Your task to perform on an android device: Play the last video I watched on Youtube Image 0: 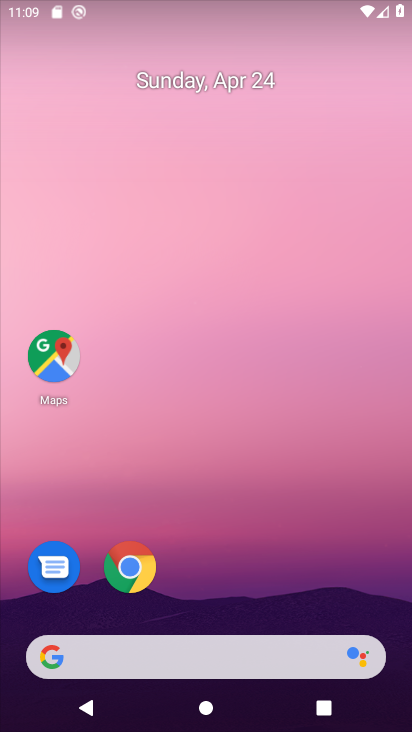
Step 0: drag from (286, 532) to (367, 345)
Your task to perform on an android device: Play the last video I watched on Youtube Image 1: 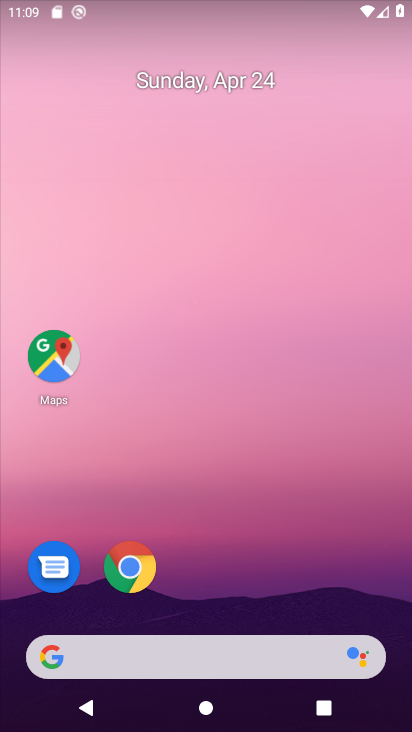
Step 1: drag from (273, 538) to (296, 18)
Your task to perform on an android device: Play the last video I watched on Youtube Image 2: 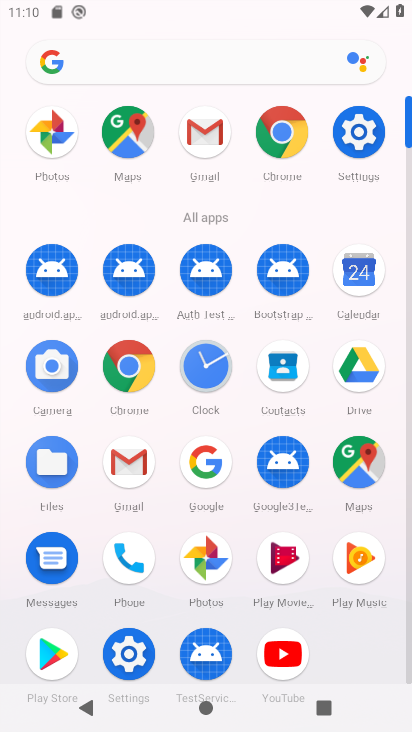
Step 2: click (290, 637)
Your task to perform on an android device: Play the last video I watched on Youtube Image 3: 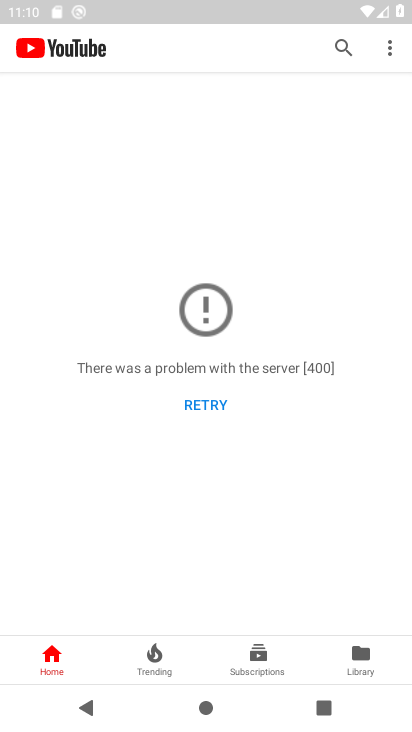
Step 3: click (185, 407)
Your task to perform on an android device: Play the last video I watched on Youtube Image 4: 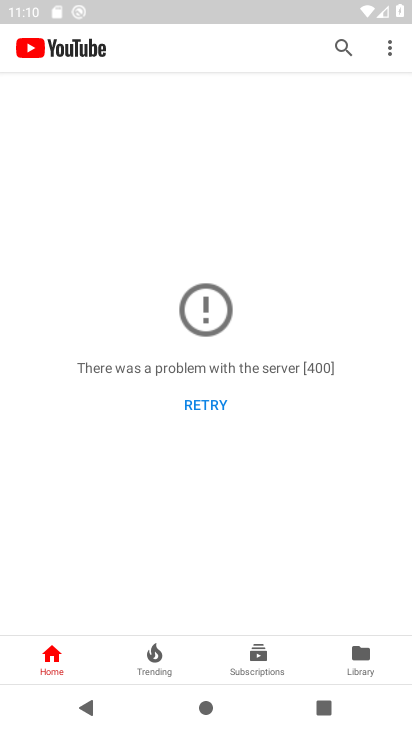
Step 4: click (196, 407)
Your task to perform on an android device: Play the last video I watched on Youtube Image 5: 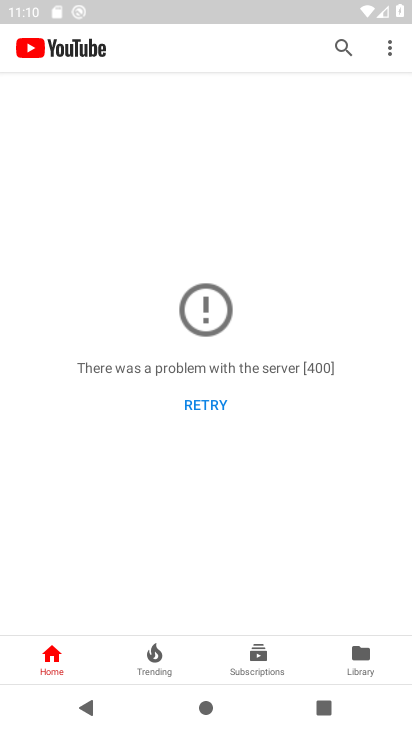
Step 5: click (196, 407)
Your task to perform on an android device: Play the last video I watched on Youtube Image 6: 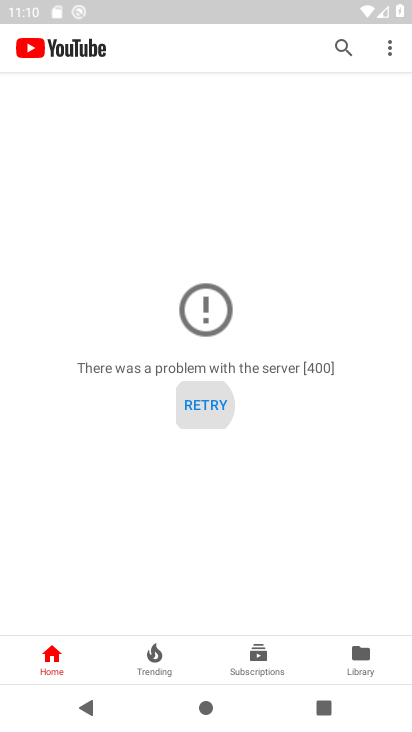
Step 6: click (196, 407)
Your task to perform on an android device: Play the last video I watched on Youtube Image 7: 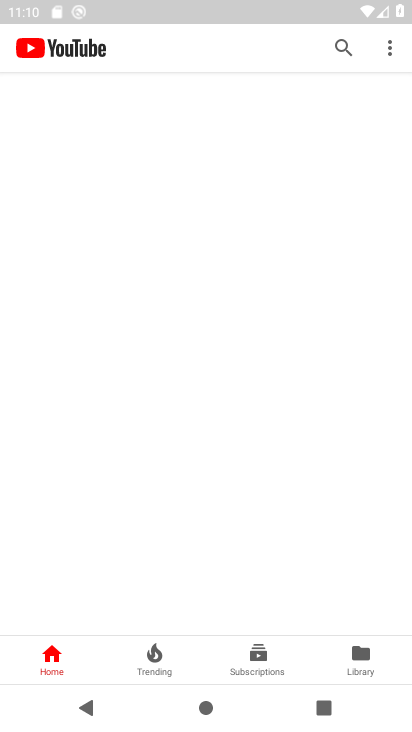
Step 7: click (196, 408)
Your task to perform on an android device: Play the last video I watched on Youtube Image 8: 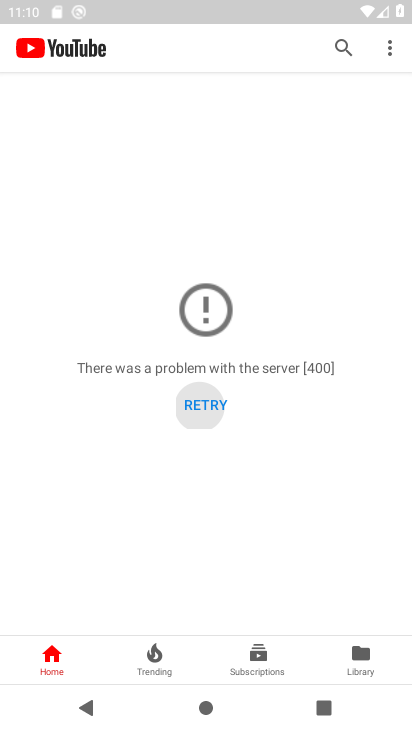
Step 8: click (196, 408)
Your task to perform on an android device: Play the last video I watched on Youtube Image 9: 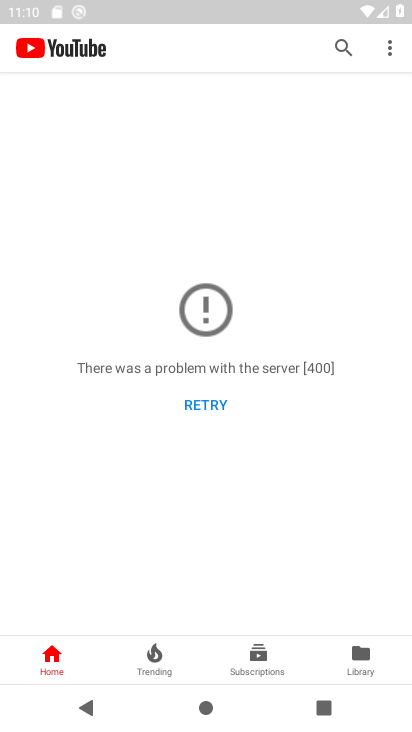
Step 9: click (196, 408)
Your task to perform on an android device: Play the last video I watched on Youtube Image 10: 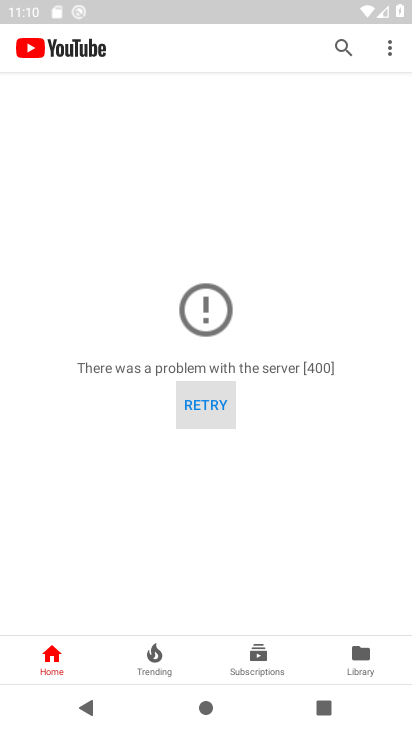
Step 10: click (196, 408)
Your task to perform on an android device: Play the last video I watched on Youtube Image 11: 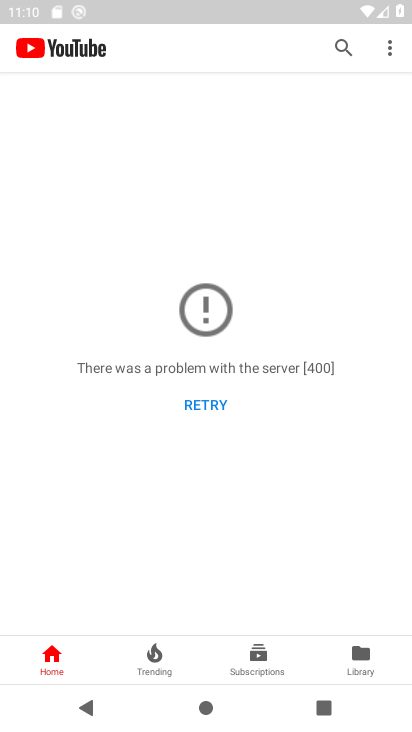
Step 11: task complete